Your task to perform on an android device: open a new tab in the chrome app Image 0: 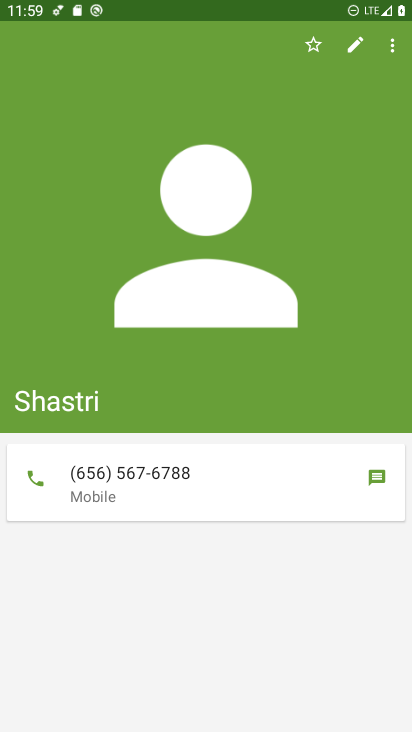
Step 0: press home button
Your task to perform on an android device: open a new tab in the chrome app Image 1: 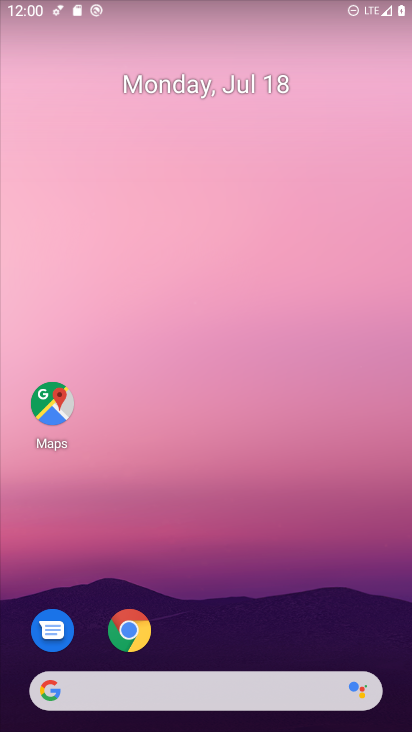
Step 1: click (133, 621)
Your task to perform on an android device: open a new tab in the chrome app Image 2: 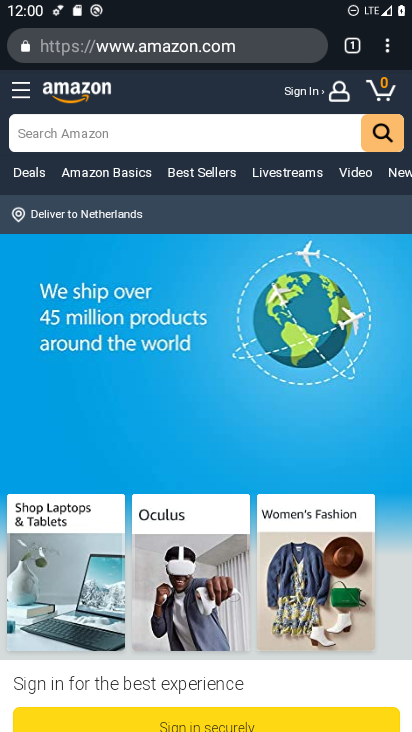
Step 2: click (355, 43)
Your task to perform on an android device: open a new tab in the chrome app Image 3: 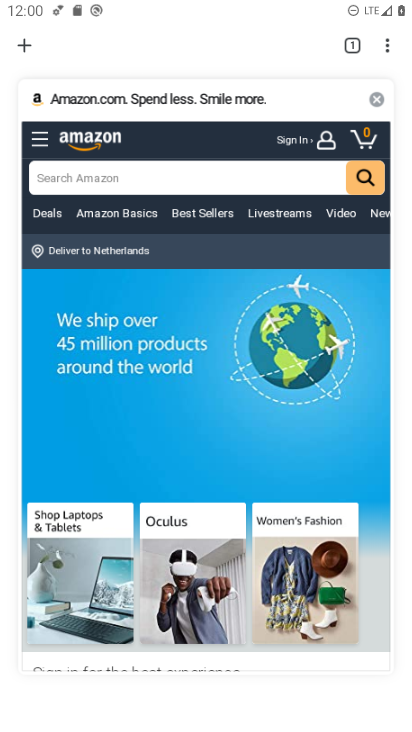
Step 3: click (18, 51)
Your task to perform on an android device: open a new tab in the chrome app Image 4: 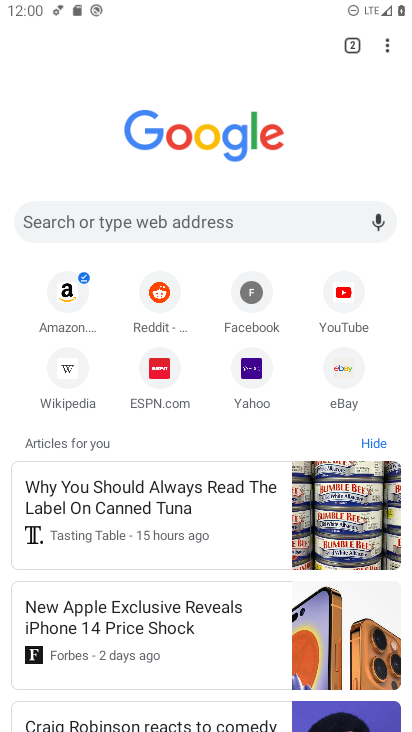
Step 4: task complete